Your task to perform on an android device: make emails show in primary in the gmail app Image 0: 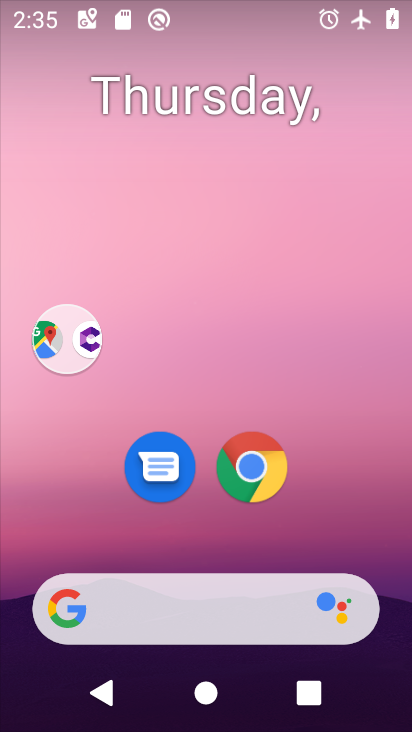
Step 0: drag from (244, 552) to (249, 97)
Your task to perform on an android device: make emails show in primary in the gmail app Image 1: 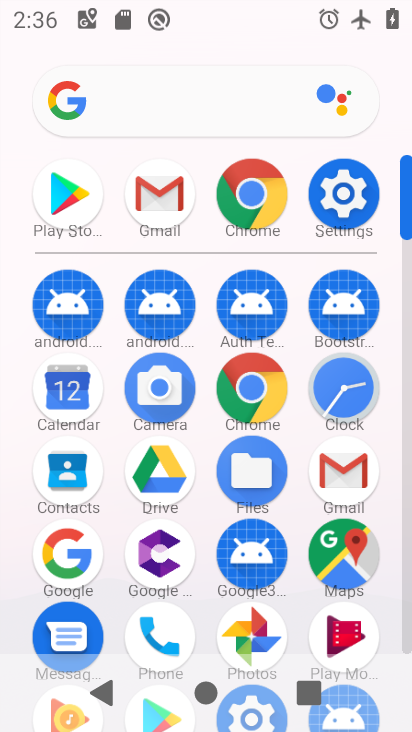
Step 1: click (342, 472)
Your task to perform on an android device: make emails show in primary in the gmail app Image 2: 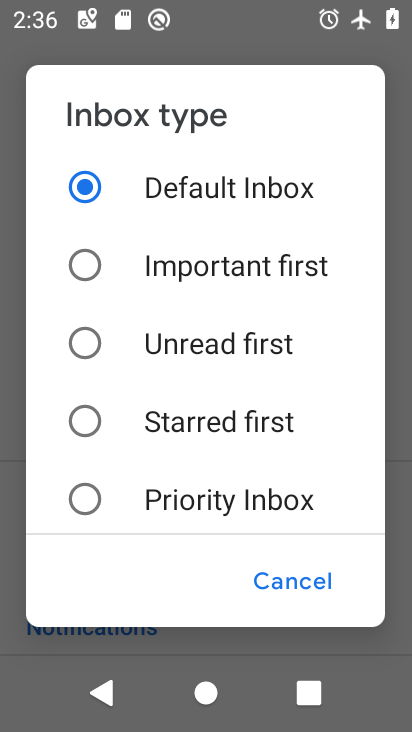
Step 2: click (283, 587)
Your task to perform on an android device: make emails show in primary in the gmail app Image 3: 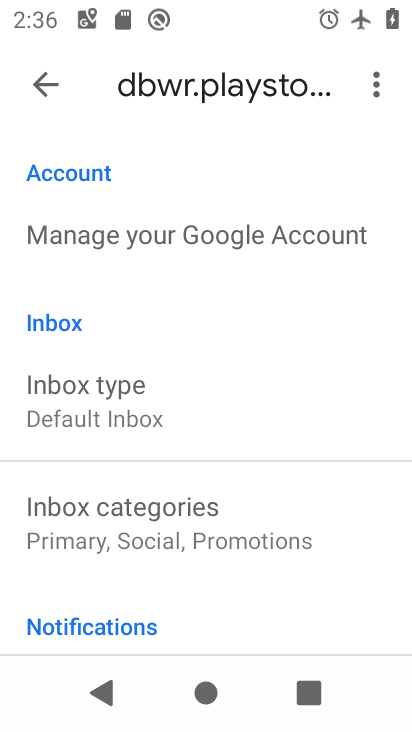
Step 3: click (44, 80)
Your task to perform on an android device: make emails show in primary in the gmail app Image 4: 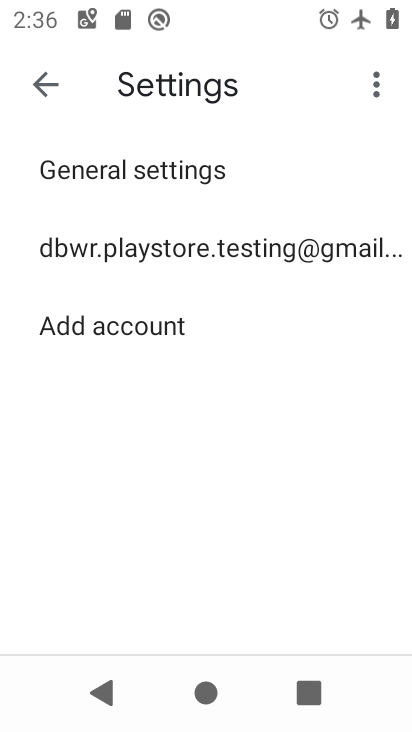
Step 4: click (42, 82)
Your task to perform on an android device: make emails show in primary in the gmail app Image 5: 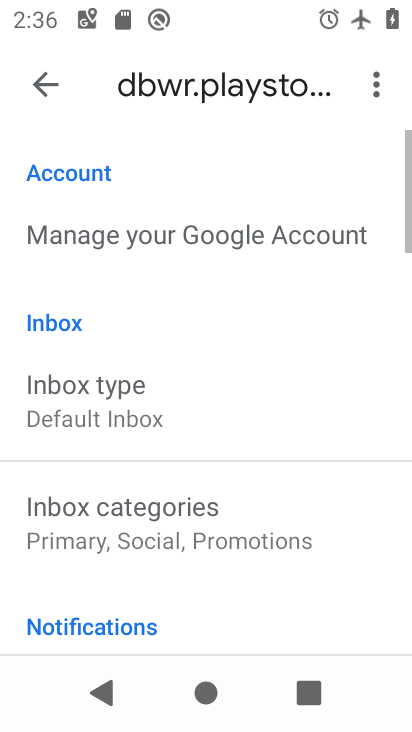
Step 5: click (42, 82)
Your task to perform on an android device: make emails show in primary in the gmail app Image 6: 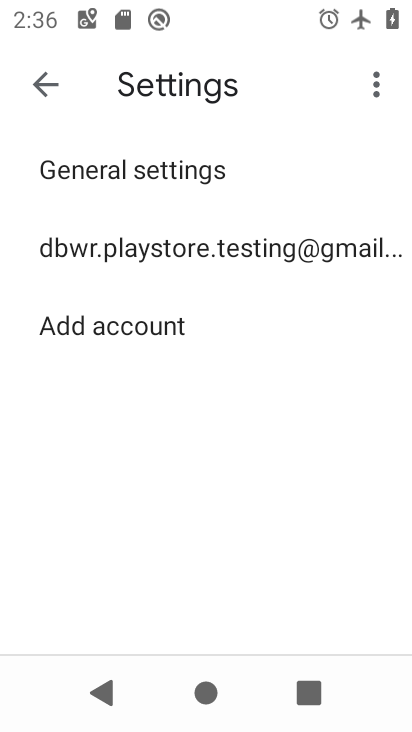
Step 6: click (42, 82)
Your task to perform on an android device: make emails show in primary in the gmail app Image 7: 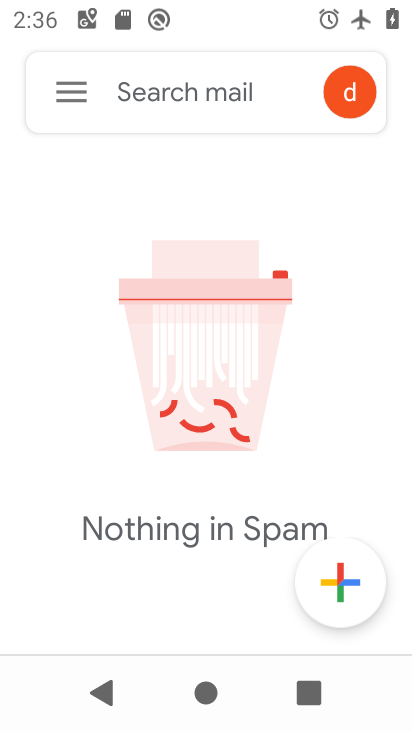
Step 7: drag from (141, 244) to (135, 440)
Your task to perform on an android device: make emails show in primary in the gmail app Image 8: 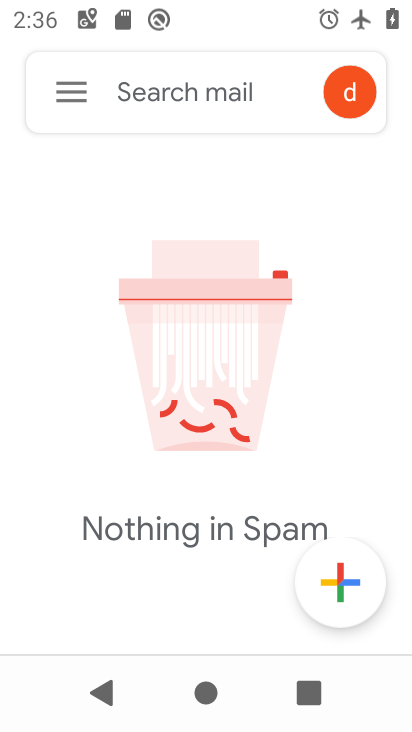
Step 8: click (74, 92)
Your task to perform on an android device: make emails show in primary in the gmail app Image 9: 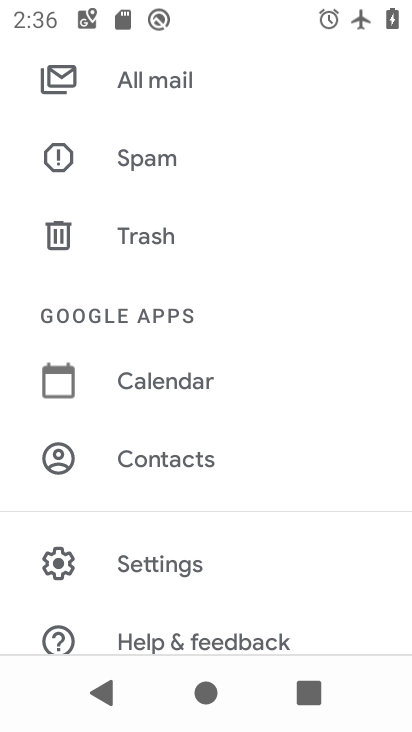
Step 9: drag from (113, 115) to (116, 637)
Your task to perform on an android device: make emails show in primary in the gmail app Image 10: 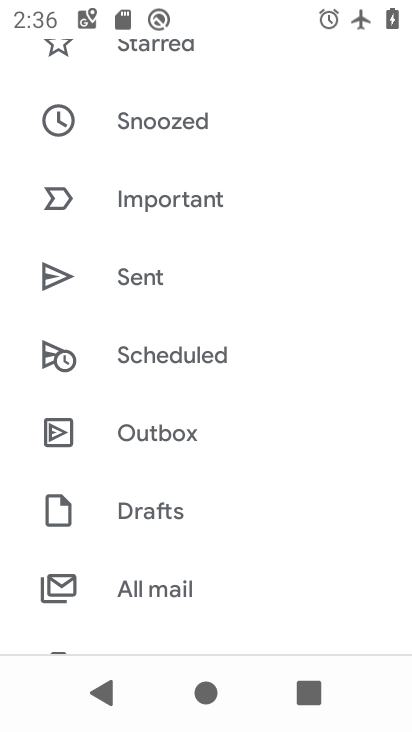
Step 10: drag from (167, 165) to (146, 663)
Your task to perform on an android device: make emails show in primary in the gmail app Image 11: 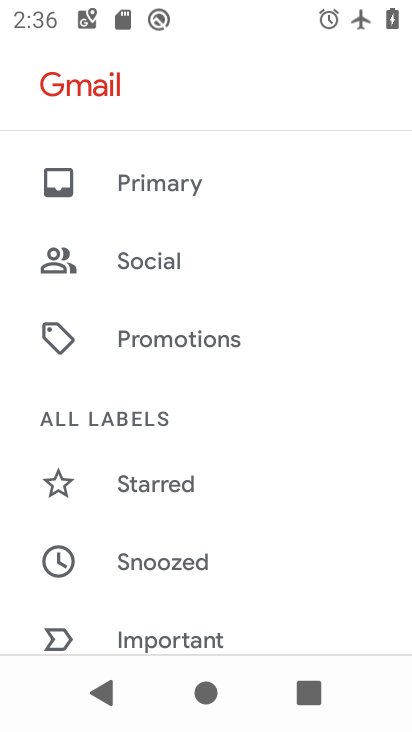
Step 11: click (151, 185)
Your task to perform on an android device: make emails show in primary in the gmail app Image 12: 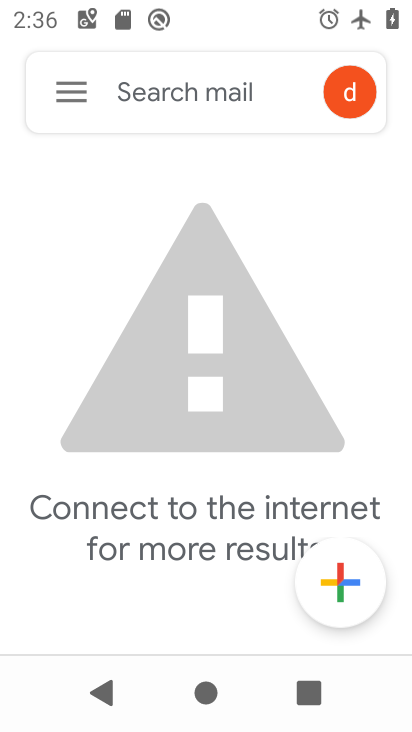
Step 12: task complete